Your task to perform on an android device: open app "Facebook Messenger" (install if not already installed) Image 0: 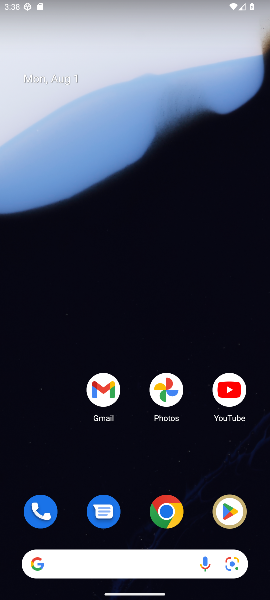
Step 0: drag from (123, 532) to (207, 4)
Your task to perform on an android device: open app "Facebook Messenger" (install if not already installed) Image 1: 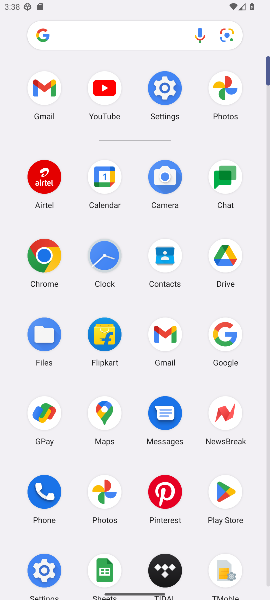
Step 1: click (228, 512)
Your task to perform on an android device: open app "Facebook Messenger" (install if not already installed) Image 2: 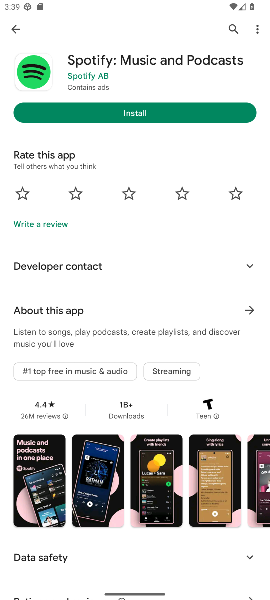
Step 2: click (15, 36)
Your task to perform on an android device: open app "Facebook Messenger" (install if not already installed) Image 3: 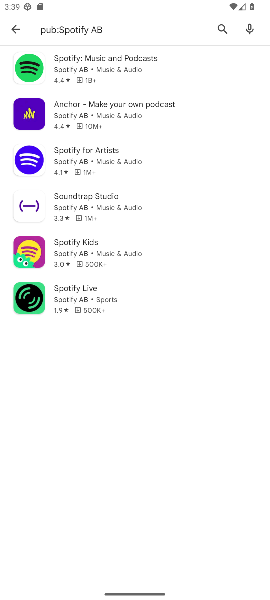
Step 3: click (14, 24)
Your task to perform on an android device: open app "Facebook Messenger" (install if not already installed) Image 4: 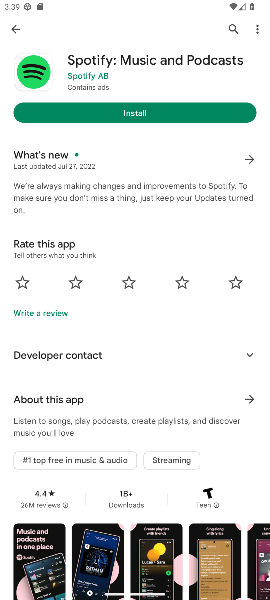
Step 4: click (18, 25)
Your task to perform on an android device: open app "Facebook Messenger" (install if not already installed) Image 5: 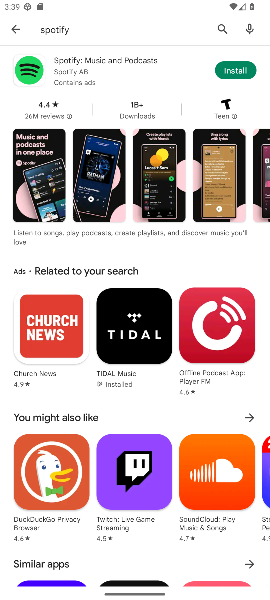
Step 5: click (16, 29)
Your task to perform on an android device: open app "Facebook Messenger" (install if not already installed) Image 6: 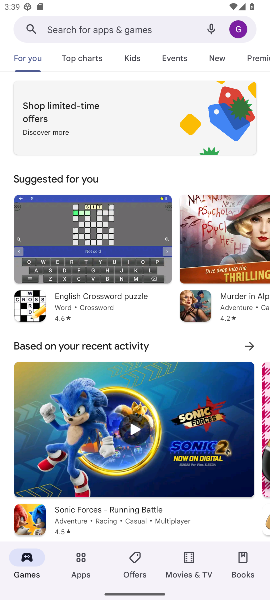
Step 6: click (113, 29)
Your task to perform on an android device: open app "Facebook Messenger" (install if not already installed) Image 7: 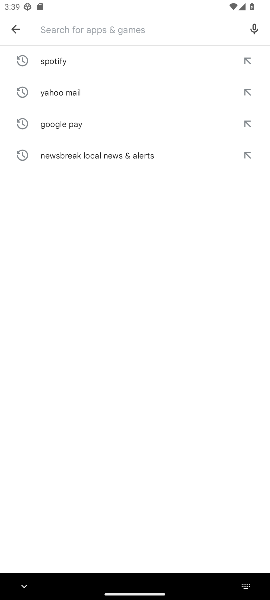
Step 7: type "Facebook Messenger"
Your task to perform on an android device: open app "Facebook Messenger" (install if not already installed) Image 8: 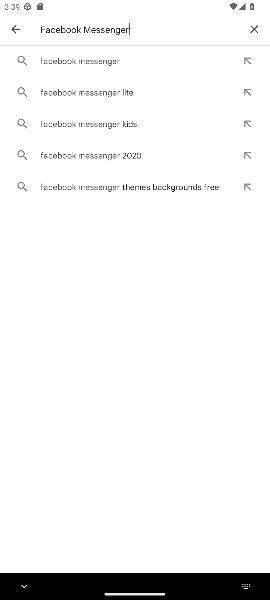
Step 8: click (80, 54)
Your task to perform on an android device: open app "Facebook Messenger" (install if not already installed) Image 9: 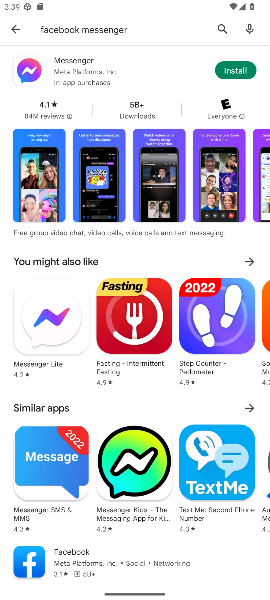
Step 9: click (237, 71)
Your task to perform on an android device: open app "Facebook Messenger" (install if not already installed) Image 10: 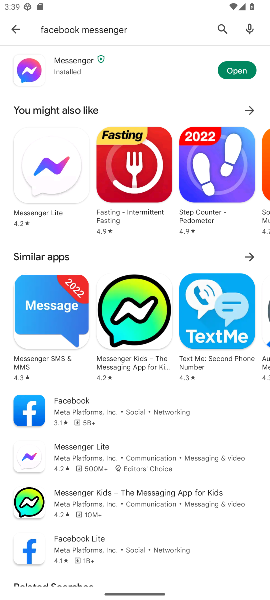
Step 10: task complete